Your task to perform on an android device: Open Maps and search for coffee Image 0: 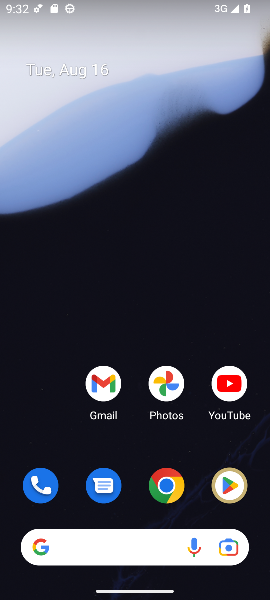
Step 0: press home button
Your task to perform on an android device: Open Maps and search for coffee Image 1: 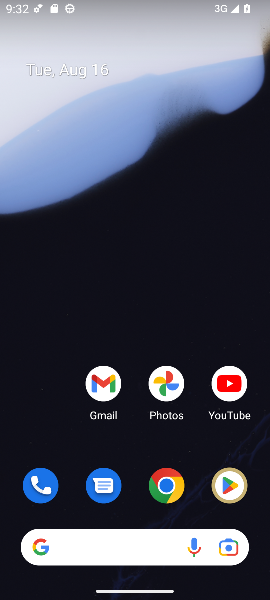
Step 1: drag from (161, 447) to (148, 101)
Your task to perform on an android device: Open Maps and search for coffee Image 2: 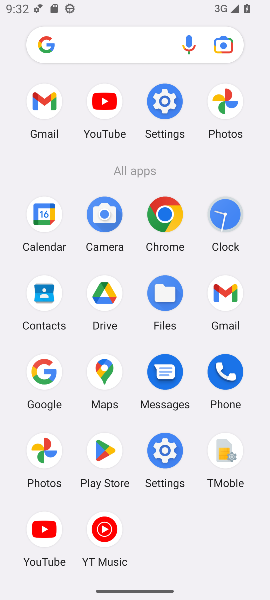
Step 2: click (99, 369)
Your task to perform on an android device: Open Maps and search for coffee Image 3: 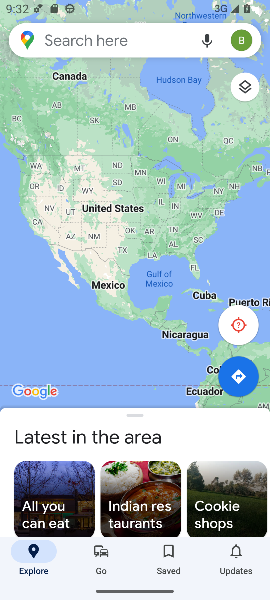
Step 3: click (111, 39)
Your task to perform on an android device: Open Maps and search for coffee Image 4: 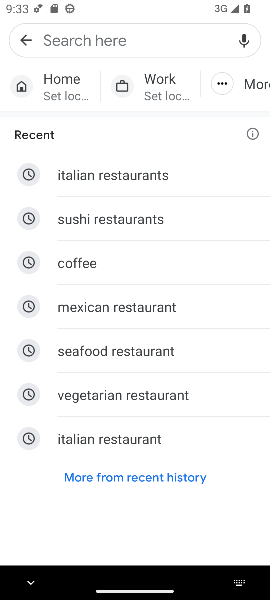
Step 4: click (163, 262)
Your task to perform on an android device: Open Maps and search for coffee Image 5: 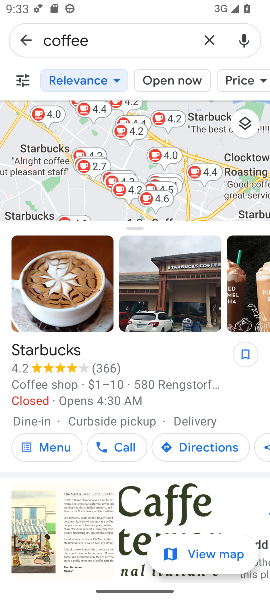
Step 5: task complete